Your task to perform on an android device: snooze an email in the gmail app Image 0: 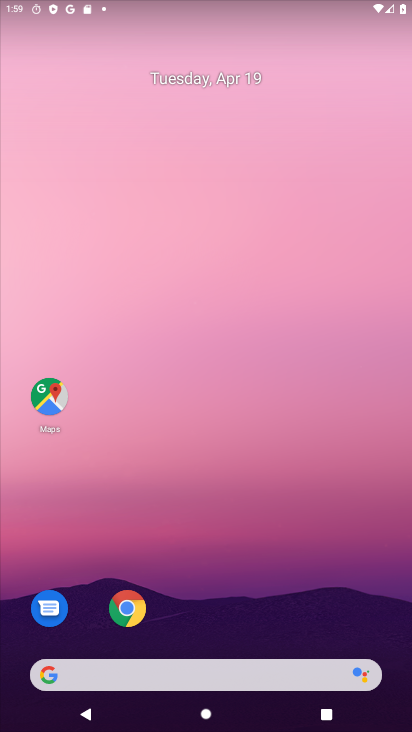
Step 0: drag from (324, 614) to (282, 314)
Your task to perform on an android device: snooze an email in the gmail app Image 1: 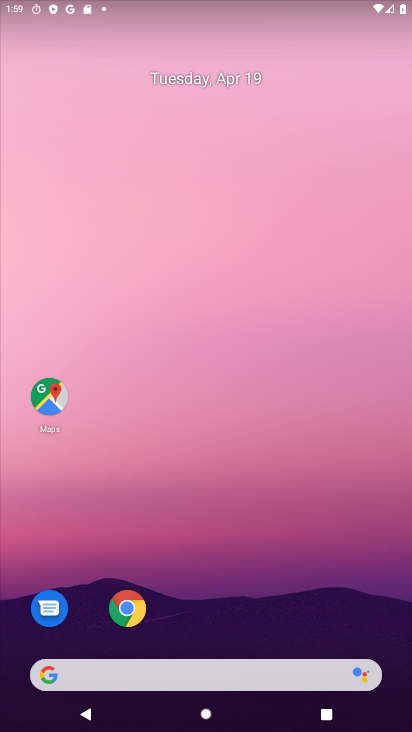
Step 1: drag from (282, 315) to (284, 0)
Your task to perform on an android device: snooze an email in the gmail app Image 2: 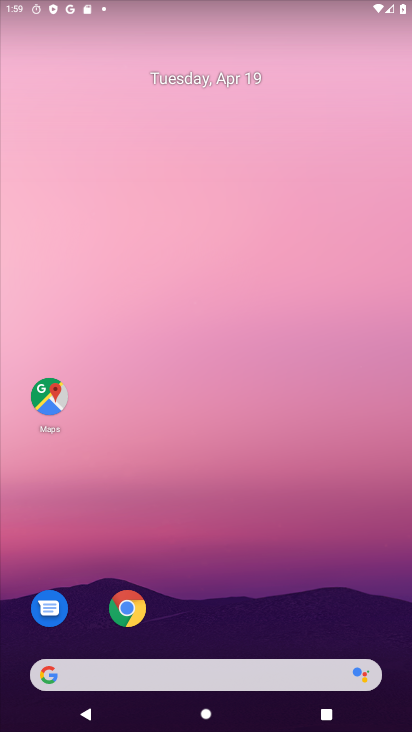
Step 2: drag from (297, 587) to (199, 0)
Your task to perform on an android device: snooze an email in the gmail app Image 3: 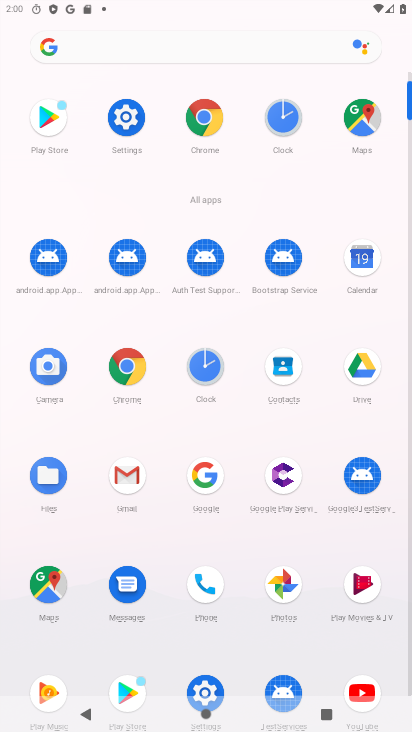
Step 3: click (137, 475)
Your task to perform on an android device: snooze an email in the gmail app Image 4: 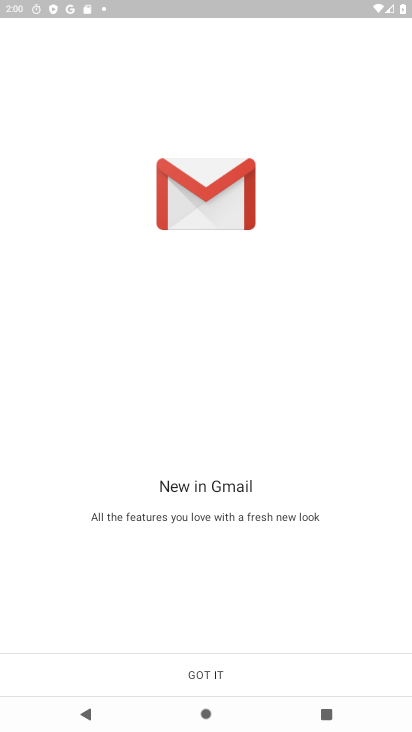
Step 4: click (255, 669)
Your task to perform on an android device: snooze an email in the gmail app Image 5: 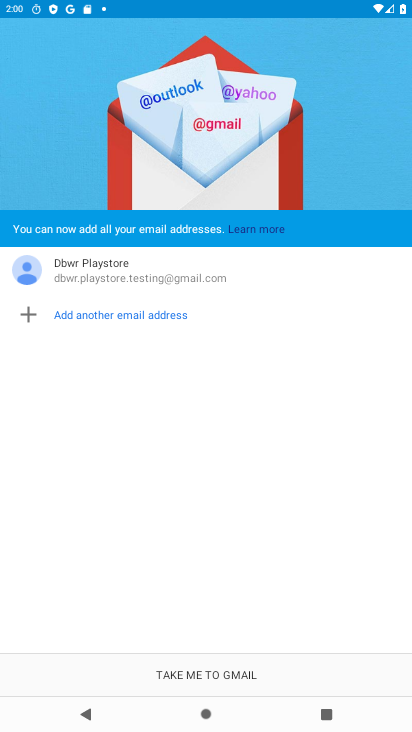
Step 5: click (255, 669)
Your task to perform on an android device: snooze an email in the gmail app Image 6: 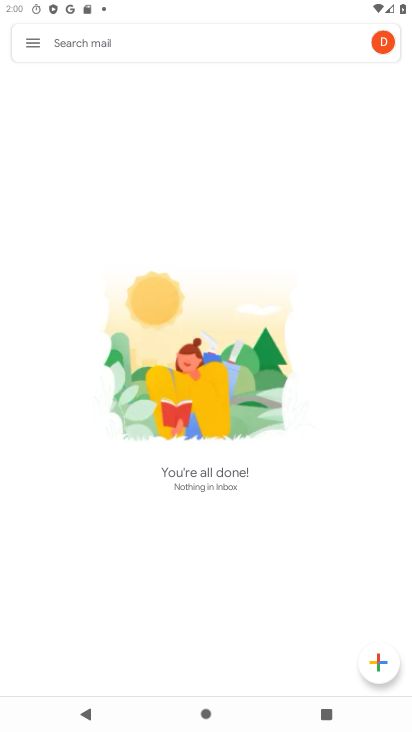
Step 6: task complete